Your task to perform on an android device: change keyboard looks Image 0: 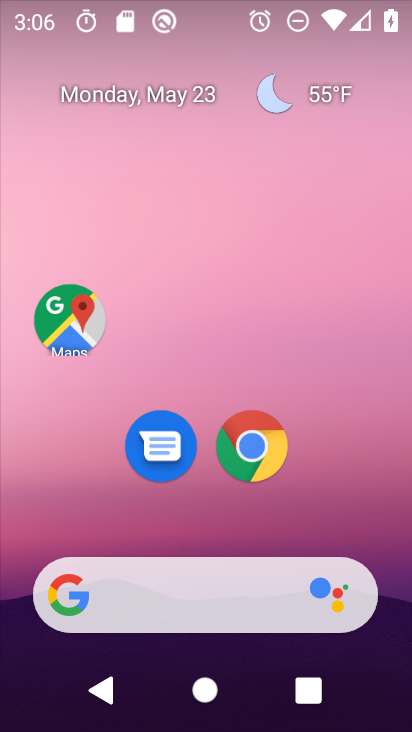
Step 0: drag from (204, 538) to (204, 147)
Your task to perform on an android device: change keyboard looks Image 1: 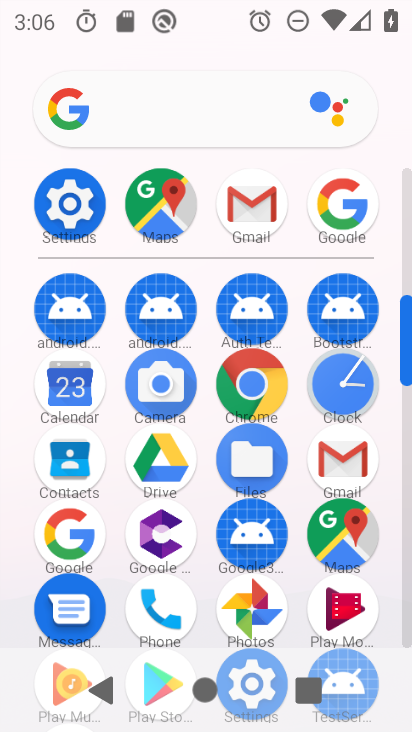
Step 1: click (52, 216)
Your task to perform on an android device: change keyboard looks Image 2: 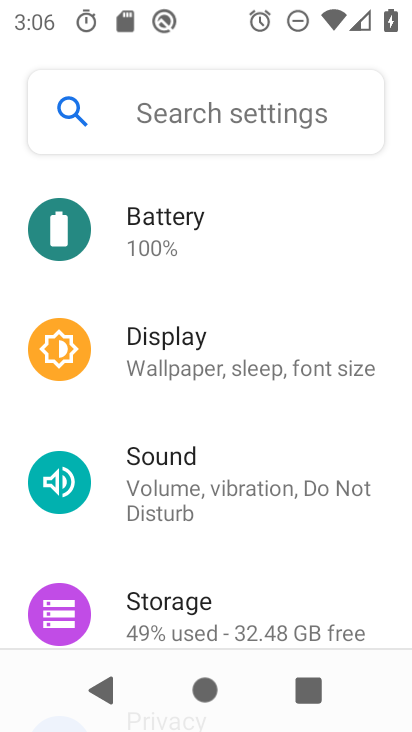
Step 2: drag from (225, 574) to (199, 278)
Your task to perform on an android device: change keyboard looks Image 3: 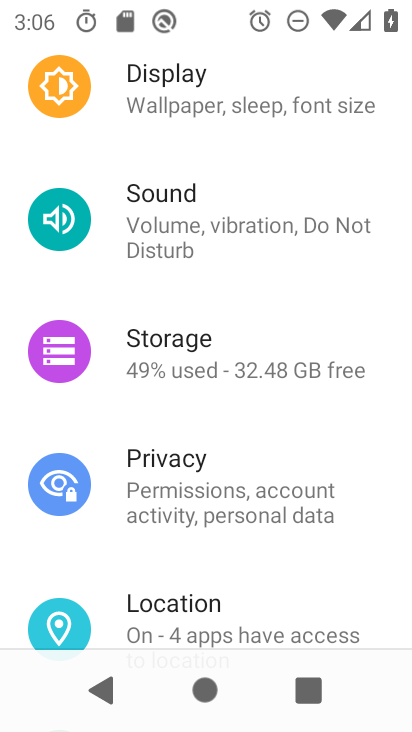
Step 3: drag from (229, 536) to (229, 255)
Your task to perform on an android device: change keyboard looks Image 4: 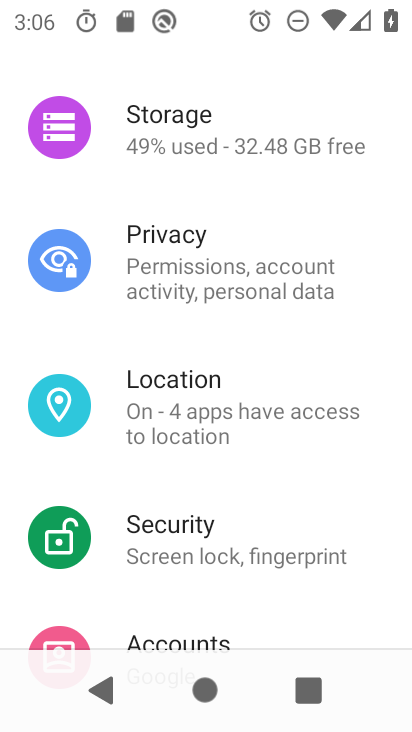
Step 4: drag from (197, 549) to (202, 300)
Your task to perform on an android device: change keyboard looks Image 5: 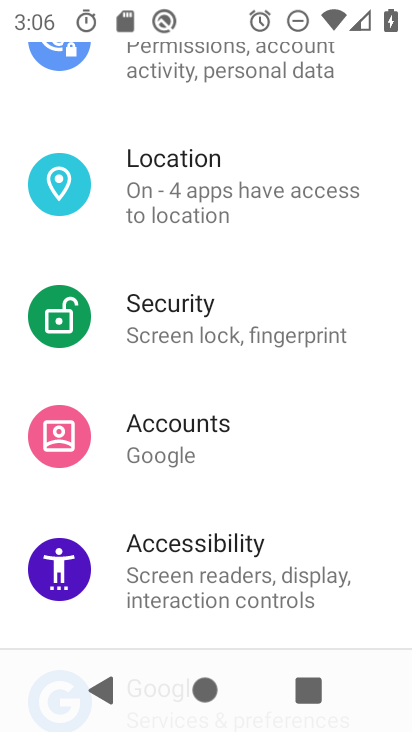
Step 5: drag from (204, 569) to (207, 296)
Your task to perform on an android device: change keyboard looks Image 6: 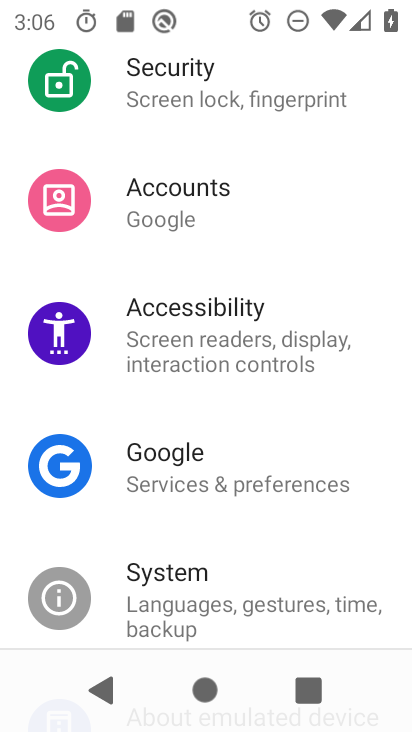
Step 6: click (194, 582)
Your task to perform on an android device: change keyboard looks Image 7: 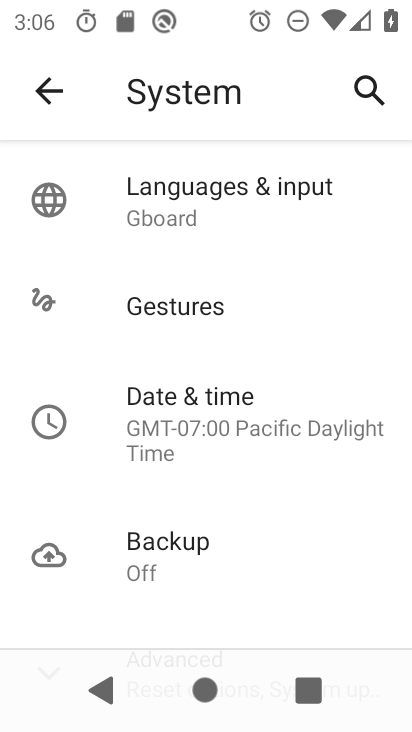
Step 7: drag from (245, 542) to (210, 263)
Your task to perform on an android device: change keyboard looks Image 8: 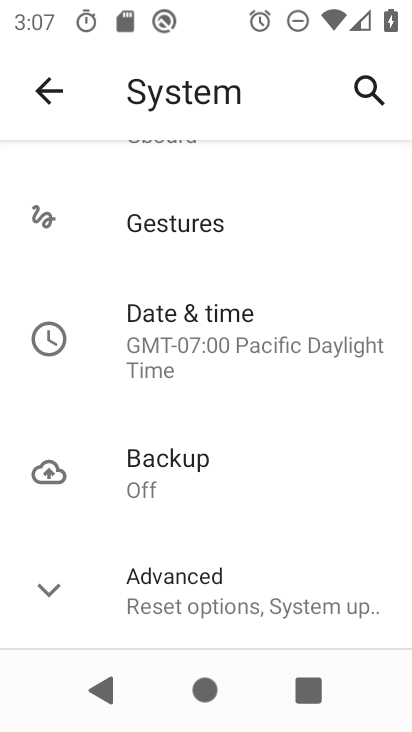
Step 8: click (229, 589)
Your task to perform on an android device: change keyboard looks Image 9: 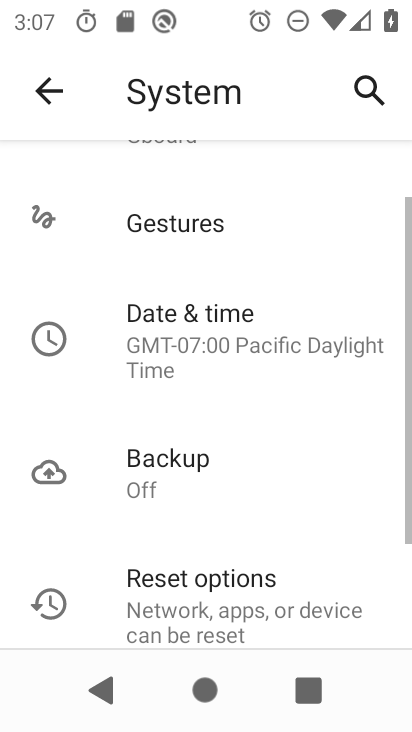
Step 9: drag from (235, 584) to (227, 264)
Your task to perform on an android device: change keyboard looks Image 10: 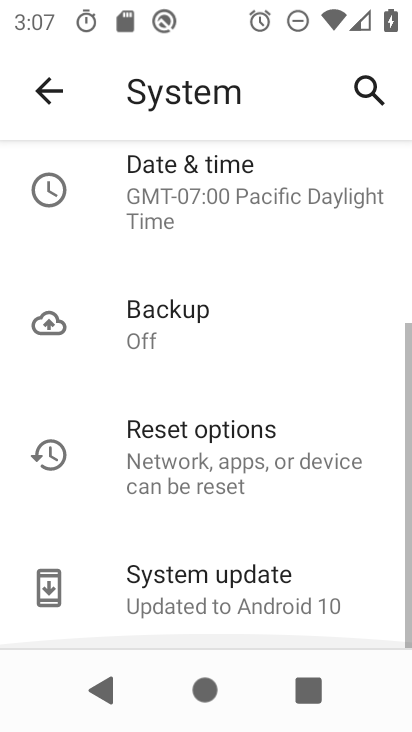
Step 10: drag from (208, 538) to (223, 241)
Your task to perform on an android device: change keyboard looks Image 11: 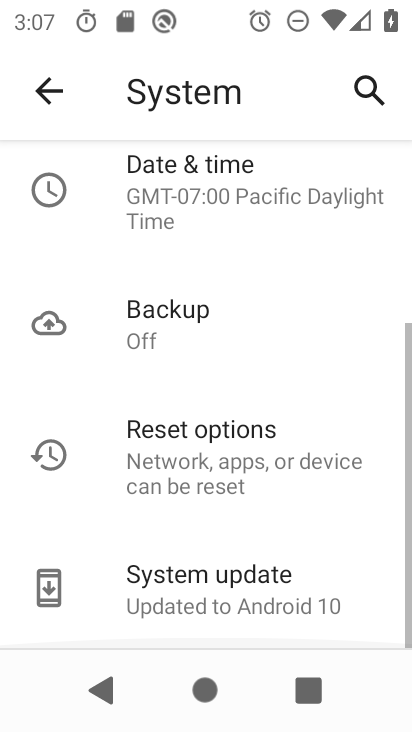
Step 11: drag from (213, 435) to (196, 245)
Your task to perform on an android device: change keyboard looks Image 12: 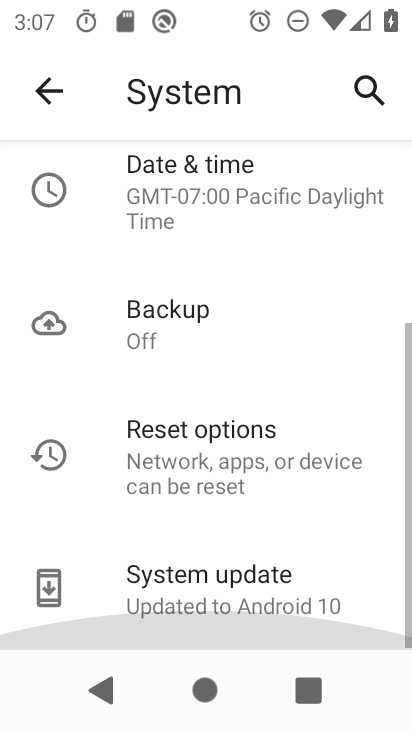
Step 12: drag from (196, 231) to (209, 513)
Your task to perform on an android device: change keyboard looks Image 13: 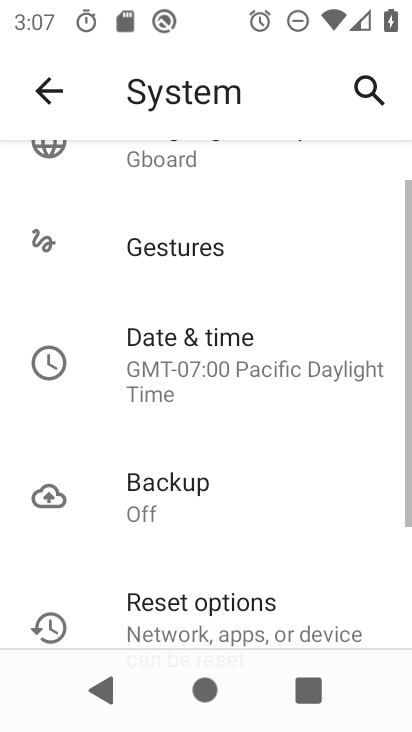
Step 13: drag from (182, 281) to (186, 547)
Your task to perform on an android device: change keyboard looks Image 14: 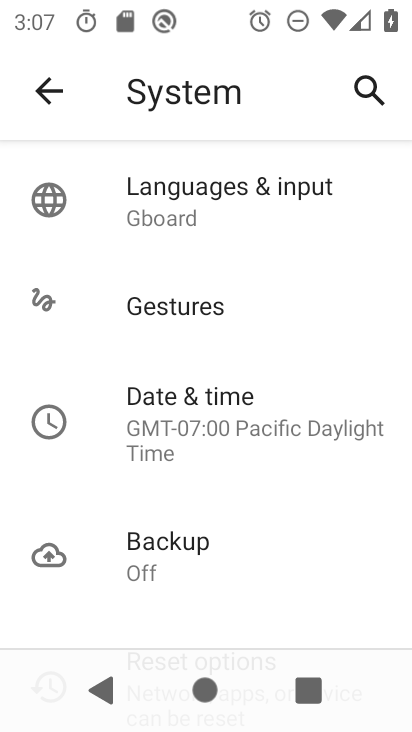
Step 14: click (196, 227)
Your task to perform on an android device: change keyboard looks Image 15: 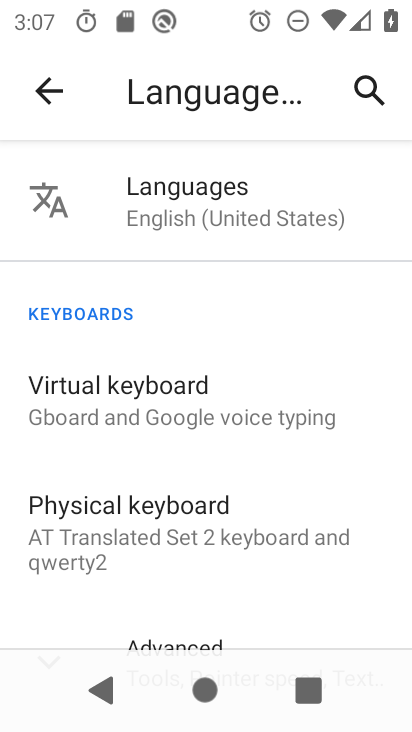
Step 15: click (141, 398)
Your task to perform on an android device: change keyboard looks Image 16: 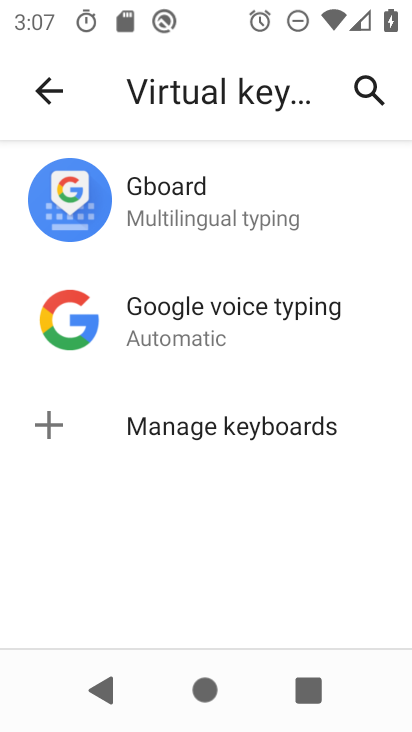
Step 16: click (150, 215)
Your task to perform on an android device: change keyboard looks Image 17: 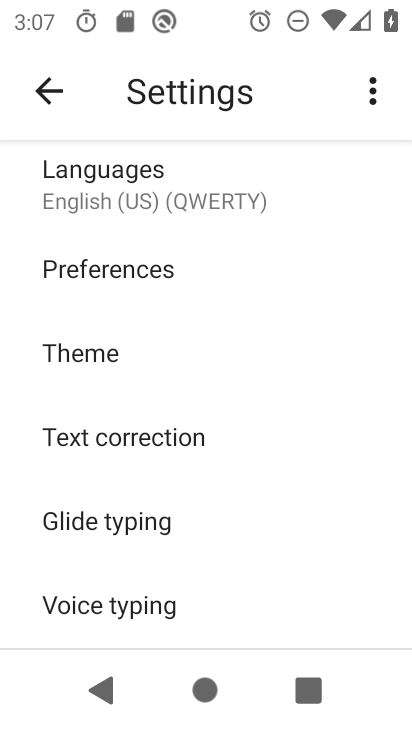
Step 17: click (97, 344)
Your task to perform on an android device: change keyboard looks Image 18: 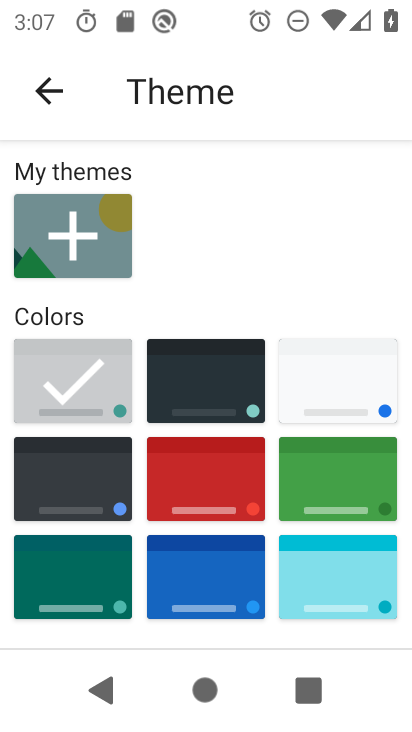
Step 18: click (195, 365)
Your task to perform on an android device: change keyboard looks Image 19: 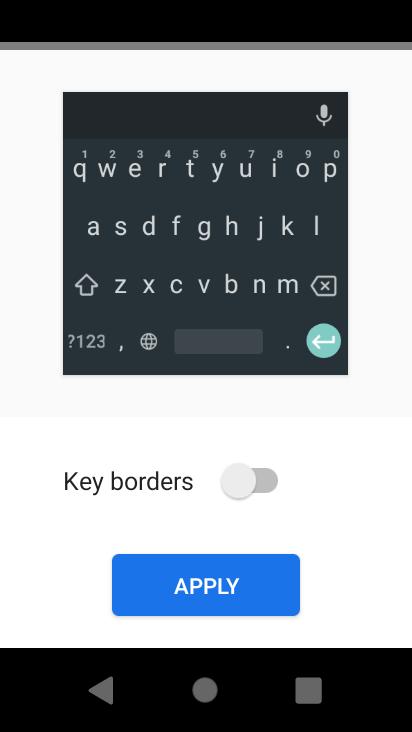
Step 19: click (187, 588)
Your task to perform on an android device: change keyboard looks Image 20: 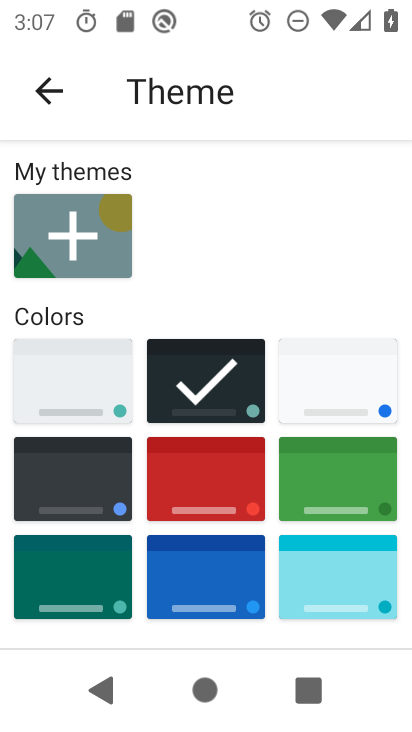
Step 20: task complete